Your task to perform on an android device: turn off notifications in google photos Image 0: 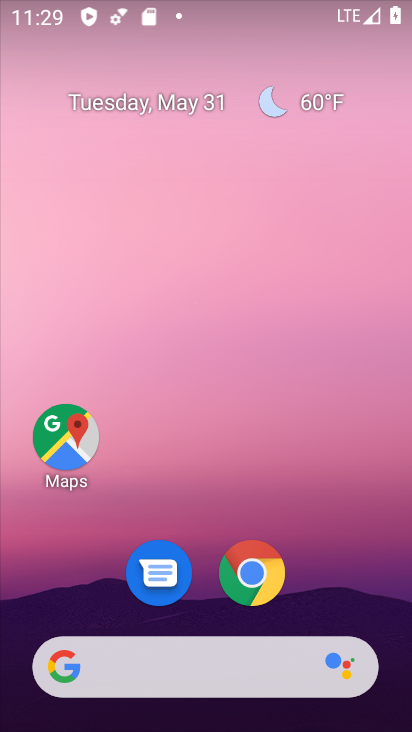
Step 0: drag from (194, 622) to (174, 275)
Your task to perform on an android device: turn off notifications in google photos Image 1: 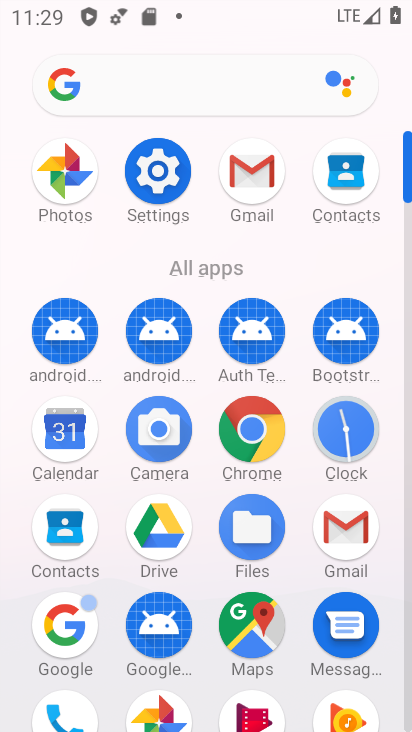
Step 1: click (79, 181)
Your task to perform on an android device: turn off notifications in google photos Image 2: 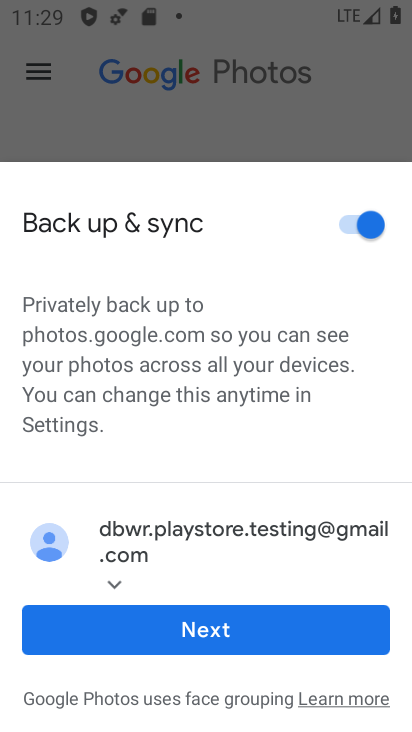
Step 2: click (177, 624)
Your task to perform on an android device: turn off notifications in google photos Image 3: 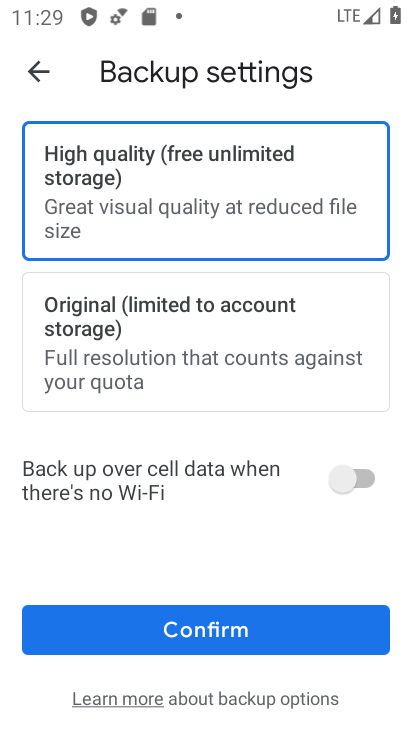
Step 3: click (134, 631)
Your task to perform on an android device: turn off notifications in google photos Image 4: 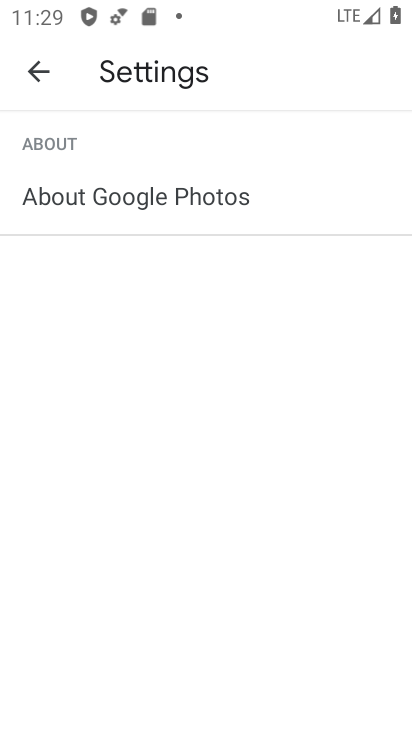
Step 4: click (47, 67)
Your task to perform on an android device: turn off notifications in google photos Image 5: 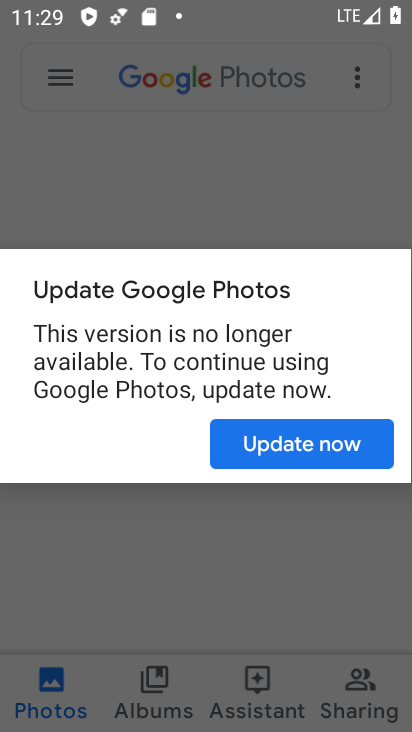
Step 5: click (258, 428)
Your task to perform on an android device: turn off notifications in google photos Image 6: 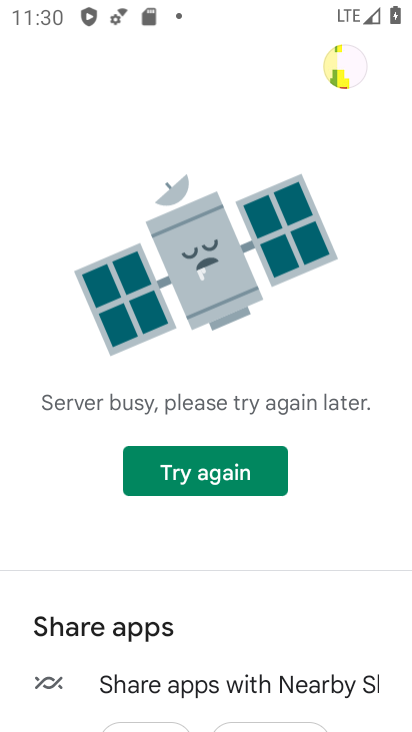
Step 6: press home button
Your task to perform on an android device: turn off notifications in google photos Image 7: 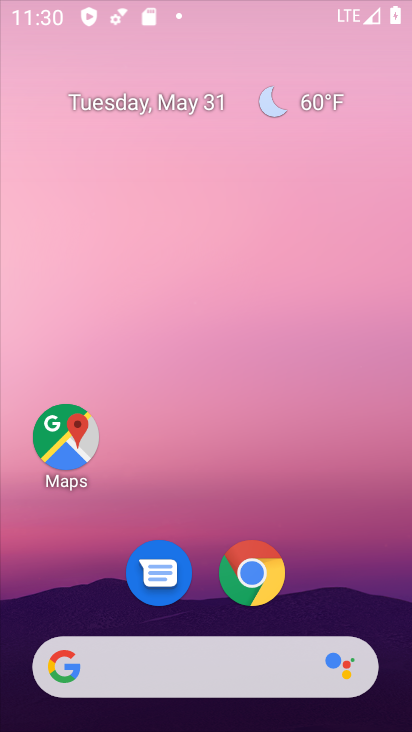
Step 7: drag from (193, 620) to (178, 127)
Your task to perform on an android device: turn off notifications in google photos Image 8: 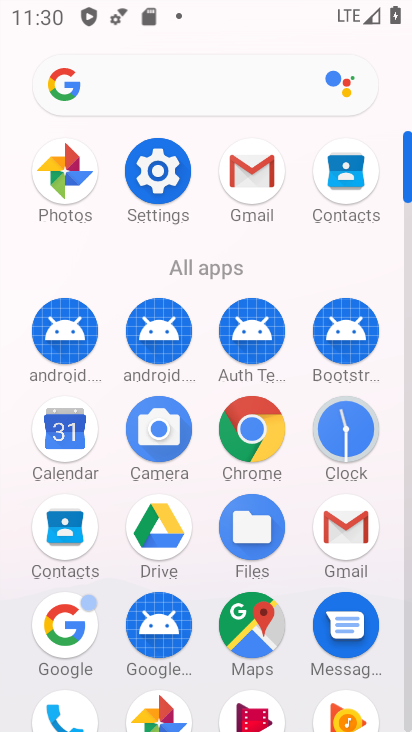
Step 8: click (75, 190)
Your task to perform on an android device: turn off notifications in google photos Image 9: 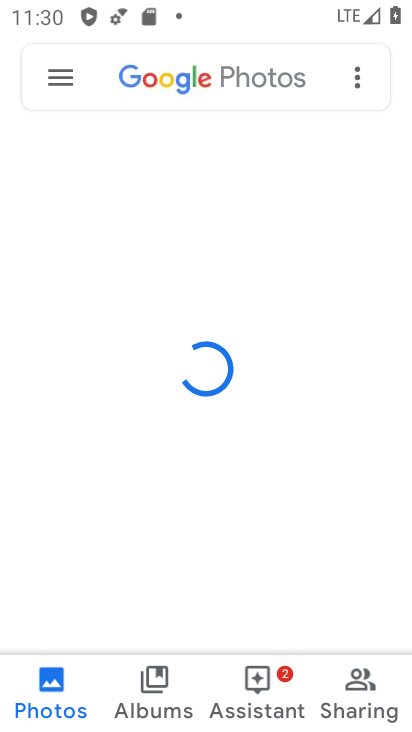
Step 9: click (58, 62)
Your task to perform on an android device: turn off notifications in google photos Image 10: 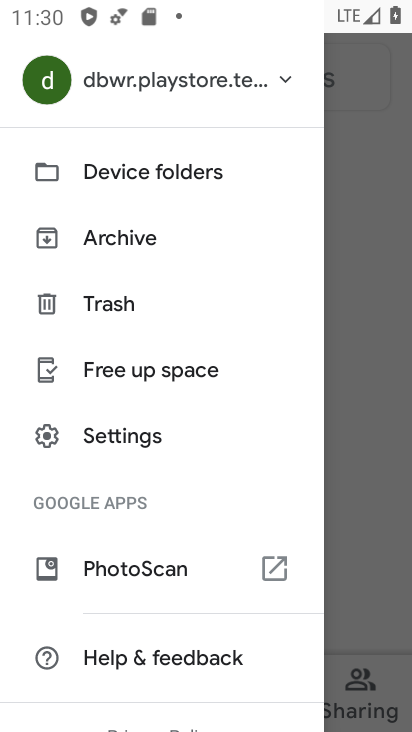
Step 10: click (100, 426)
Your task to perform on an android device: turn off notifications in google photos Image 11: 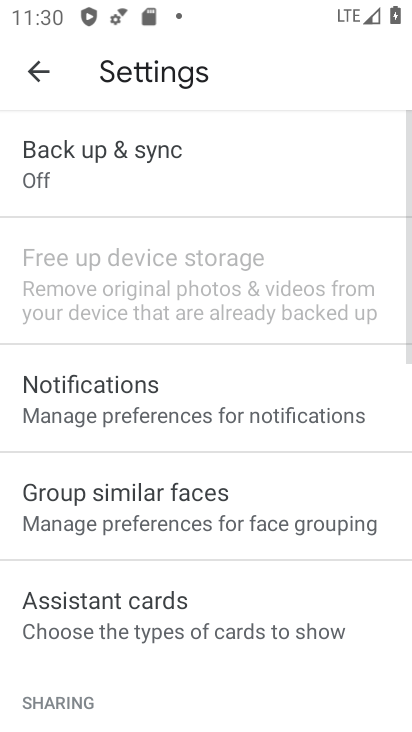
Step 11: drag from (169, 562) to (166, 428)
Your task to perform on an android device: turn off notifications in google photos Image 12: 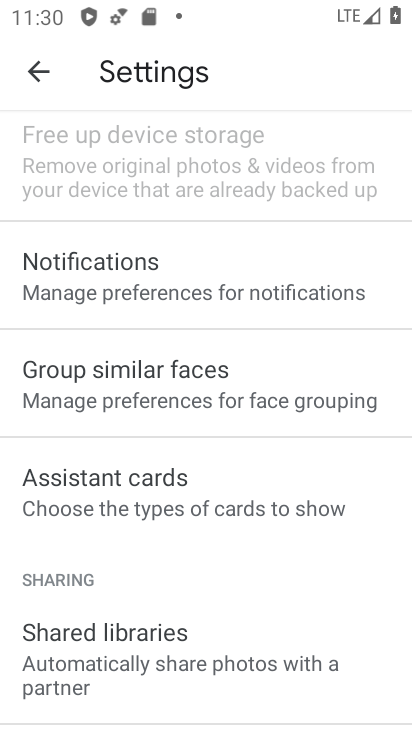
Step 12: drag from (140, 624) to (143, 244)
Your task to perform on an android device: turn off notifications in google photos Image 13: 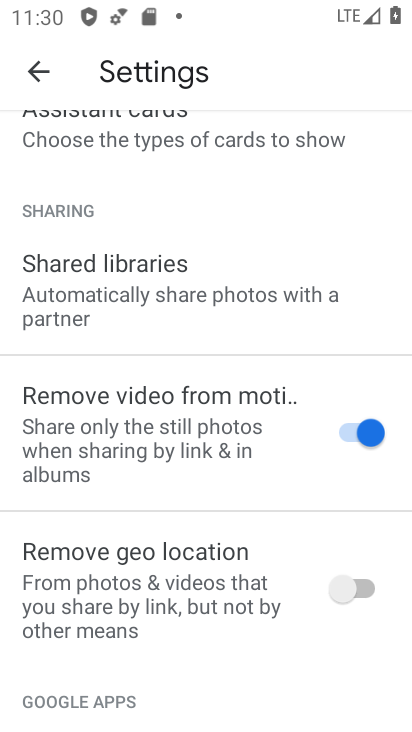
Step 13: drag from (159, 576) to (136, 264)
Your task to perform on an android device: turn off notifications in google photos Image 14: 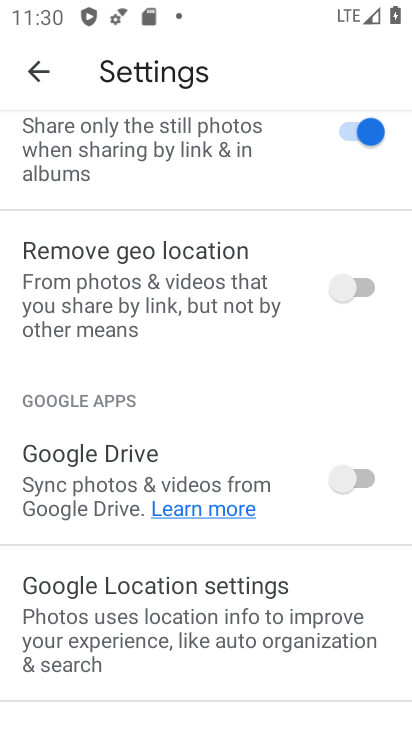
Step 14: drag from (114, 641) to (112, 236)
Your task to perform on an android device: turn off notifications in google photos Image 15: 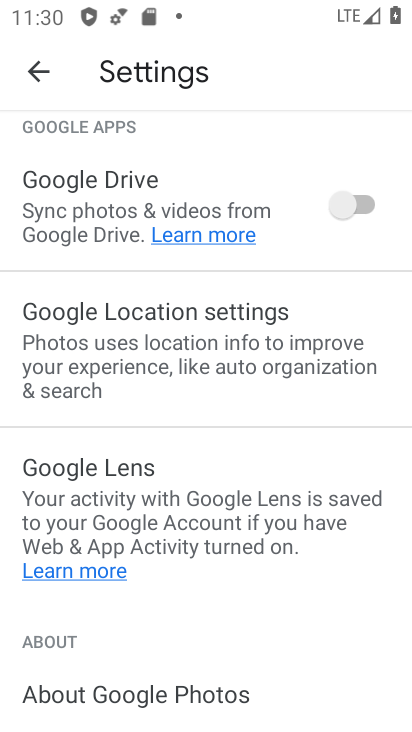
Step 15: drag from (133, 559) to (135, 296)
Your task to perform on an android device: turn off notifications in google photos Image 16: 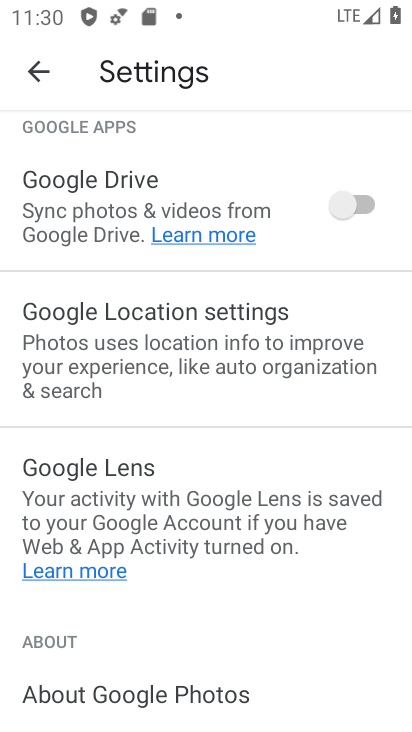
Step 16: drag from (195, 660) to (201, 301)
Your task to perform on an android device: turn off notifications in google photos Image 17: 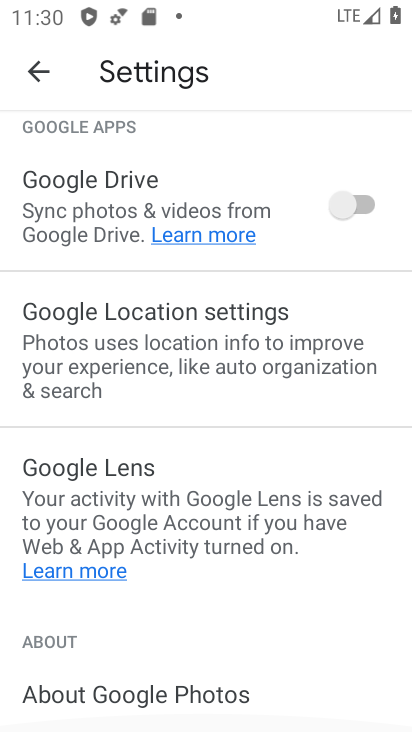
Step 17: drag from (177, 233) to (204, 557)
Your task to perform on an android device: turn off notifications in google photos Image 18: 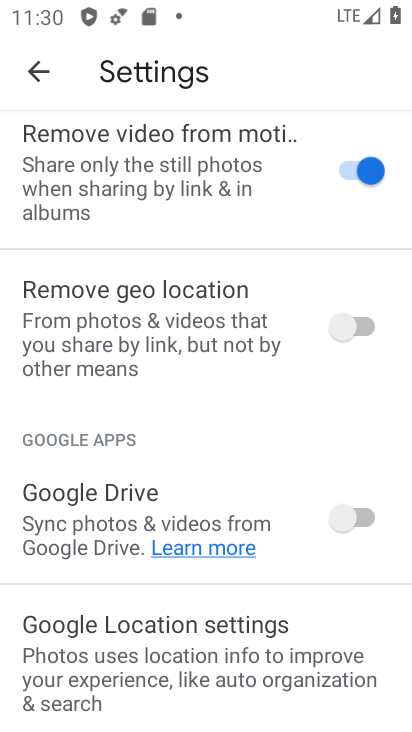
Step 18: drag from (200, 330) to (232, 581)
Your task to perform on an android device: turn off notifications in google photos Image 19: 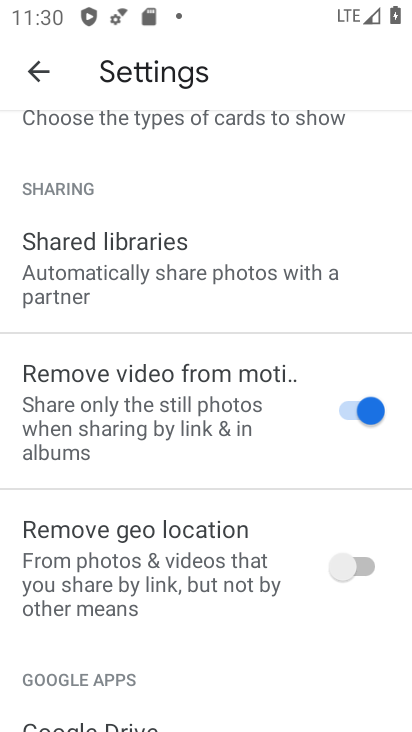
Step 19: drag from (198, 271) to (218, 579)
Your task to perform on an android device: turn off notifications in google photos Image 20: 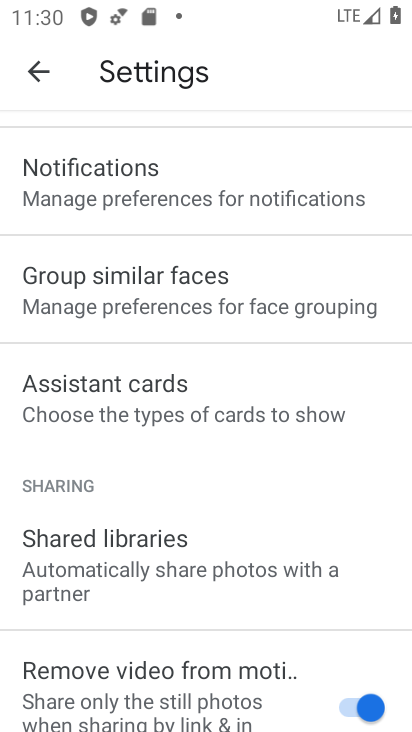
Step 20: click (163, 184)
Your task to perform on an android device: turn off notifications in google photos Image 21: 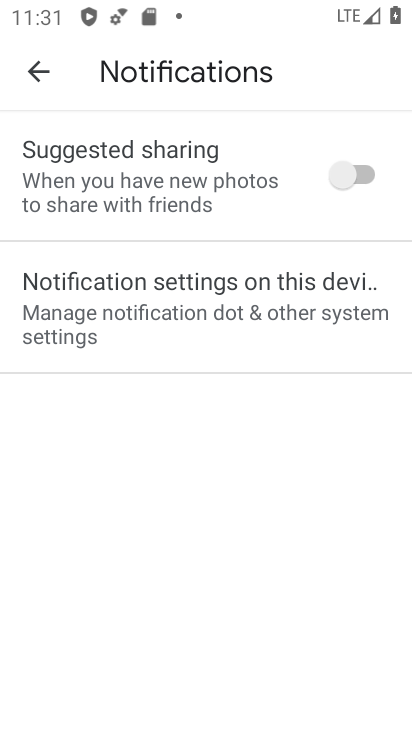
Step 21: click (221, 317)
Your task to perform on an android device: turn off notifications in google photos Image 22: 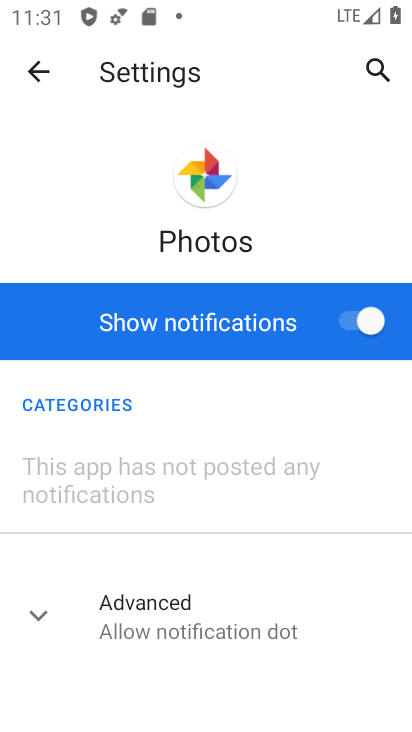
Step 22: click (355, 315)
Your task to perform on an android device: turn off notifications in google photos Image 23: 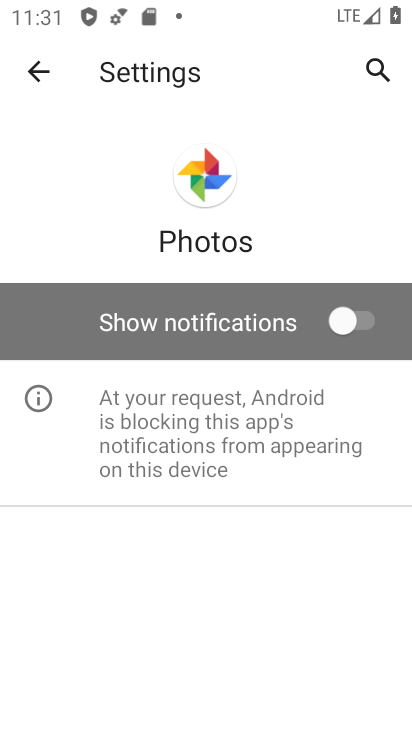
Step 23: task complete